Your task to perform on an android device: open sync settings in chrome Image 0: 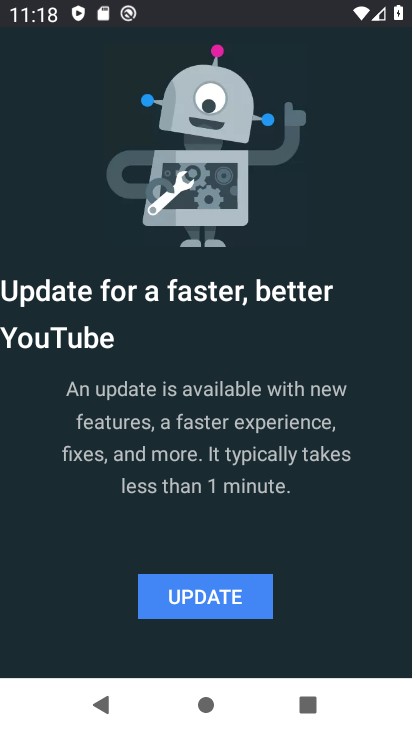
Step 0: press back button
Your task to perform on an android device: open sync settings in chrome Image 1: 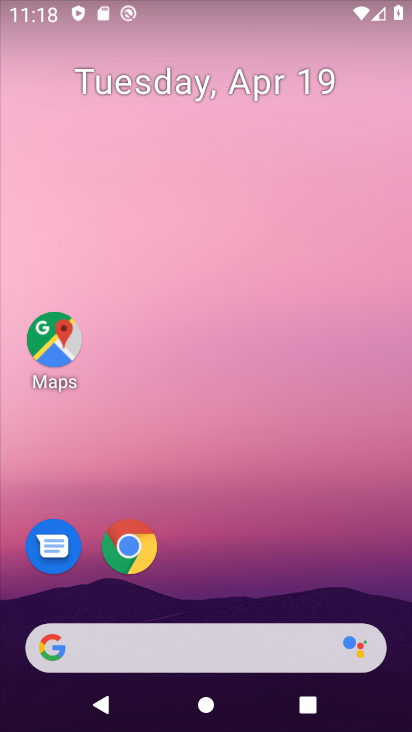
Step 1: click (125, 544)
Your task to perform on an android device: open sync settings in chrome Image 2: 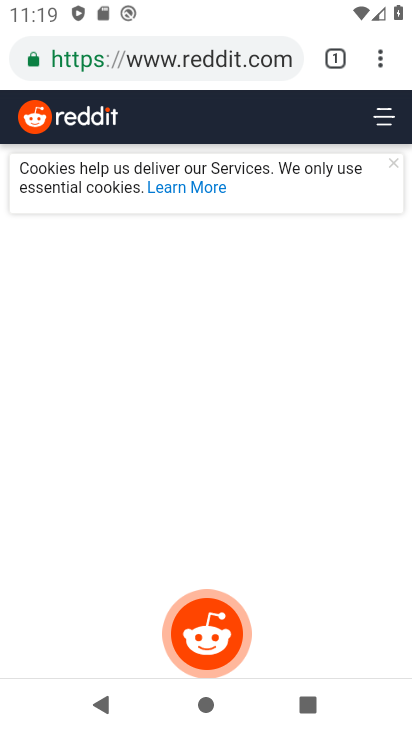
Step 2: drag from (385, 65) to (193, 566)
Your task to perform on an android device: open sync settings in chrome Image 3: 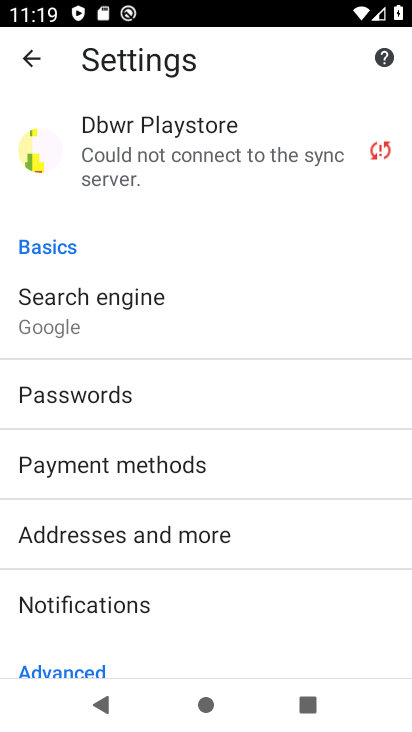
Step 3: drag from (222, 574) to (201, 261)
Your task to perform on an android device: open sync settings in chrome Image 4: 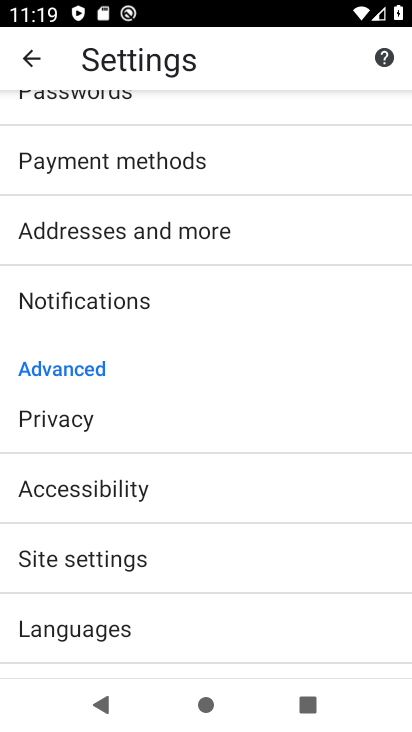
Step 4: drag from (221, 569) to (221, 219)
Your task to perform on an android device: open sync settings in chrome Image 5: 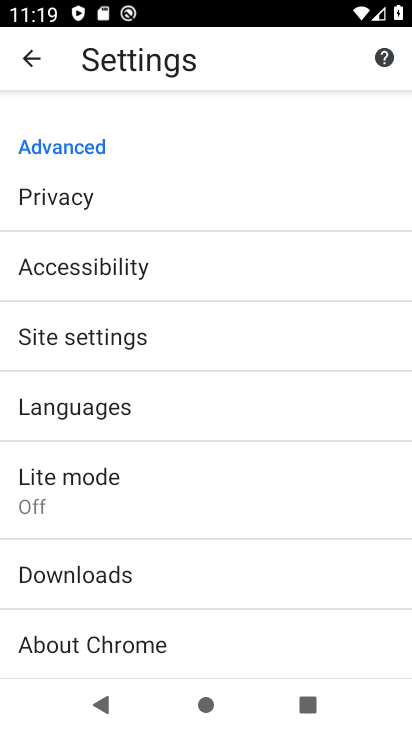
Step 5: drag from (233, 213) to (237, 561)
Your task to perform on an android device: open sync settings in chrome Image 6: 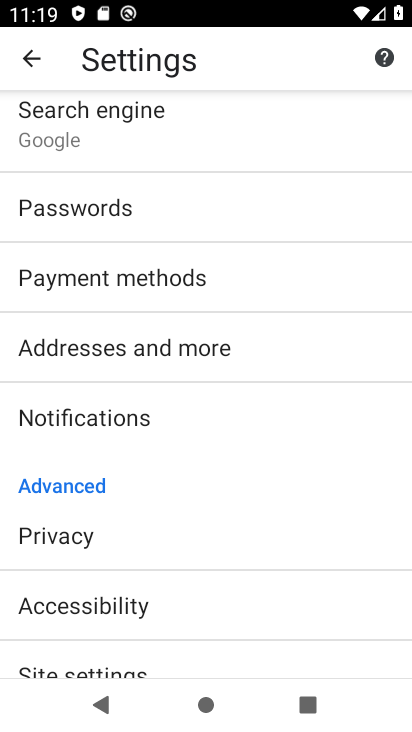
Step 6: drag from (216, 178) to (247, 516)
Your task to perform on an android device: open sync settings in chrome Image 7: 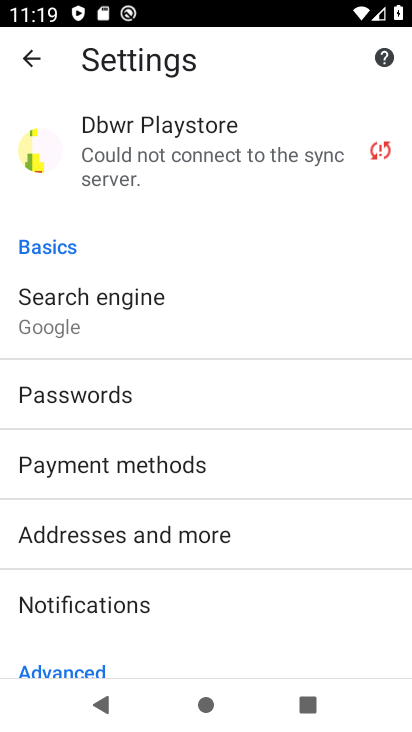
Step 7: click (168, 152)
Your task to perform on an android device: open sync settings in chrome Image 8: 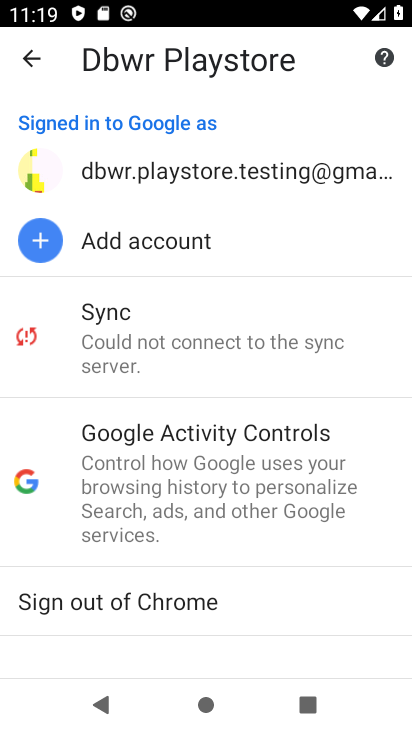
Step 8: click (171, 322)
Your task to perform on an android device: open sync settings in chrome Image 9: 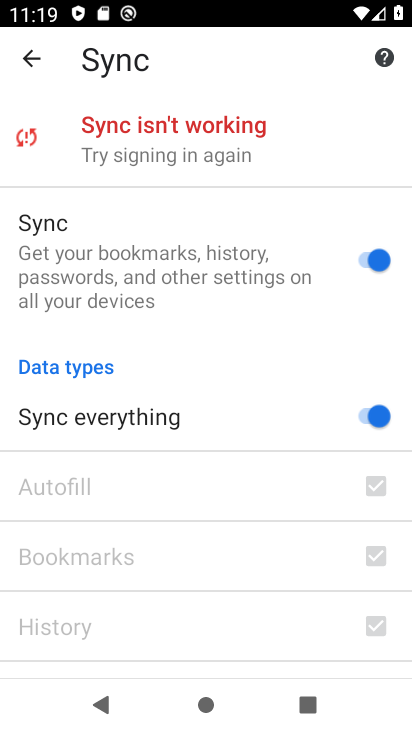
Step 9: task complete